Your task to perform on an android device: Open calendar and show me the fourth week of next month Image 0: 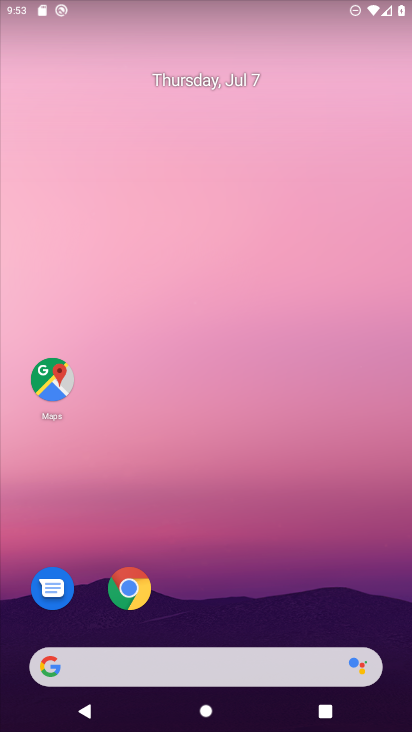
Step 0: click (228, 79)
Your task to perform on an android device: Open calendar and show me the fourth week of next month Image 1: 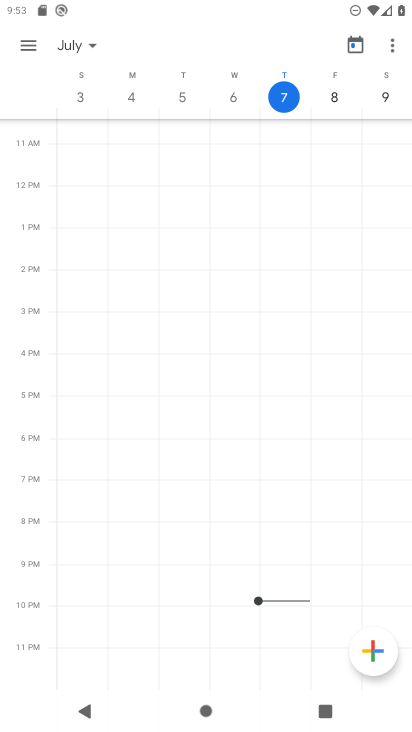
Step 1: click (82, 45)
Your task to perform on an android device: Open calendar and show me the fourth week of next month Image 2: 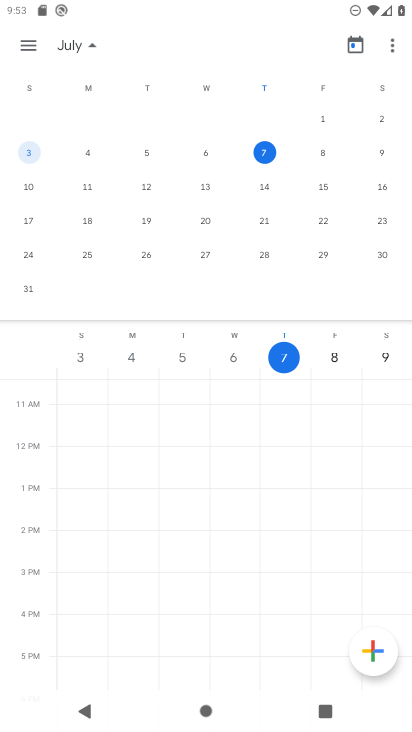
Step 2: click (78, 50)
Your task to perform on an android device: Open calendar and show me the fourth week of next month Image 3: 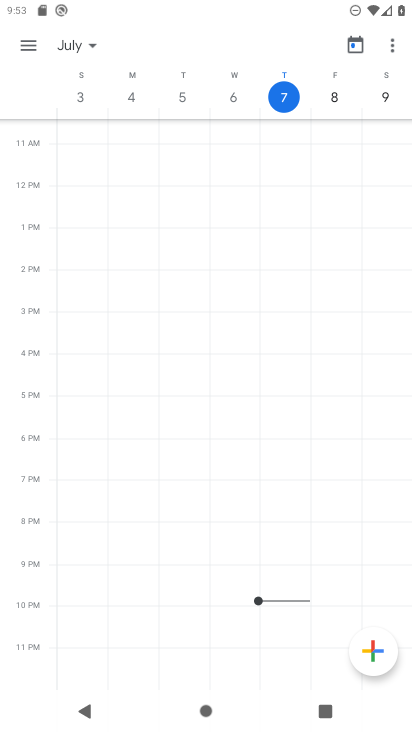
Step 3: drag from (343, 180) to (32, 212)
Your task to perform on an android device: Open calendar and show me the fourth week of next month Image 4: 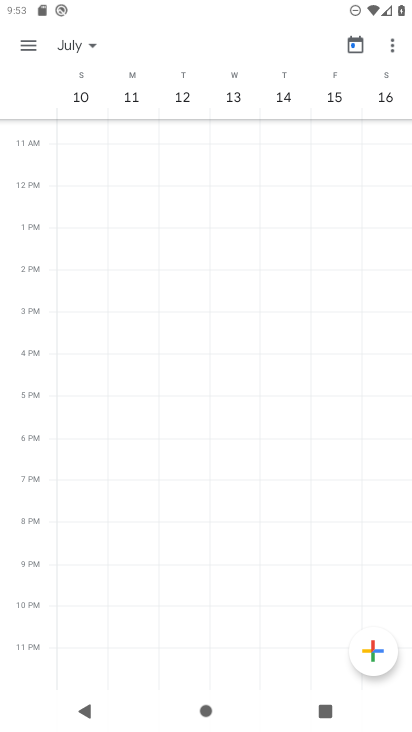
Step 4: click (96, 52)
Your task to perform on an android device: Open calendar and show me the fourth week of next month Image 5: 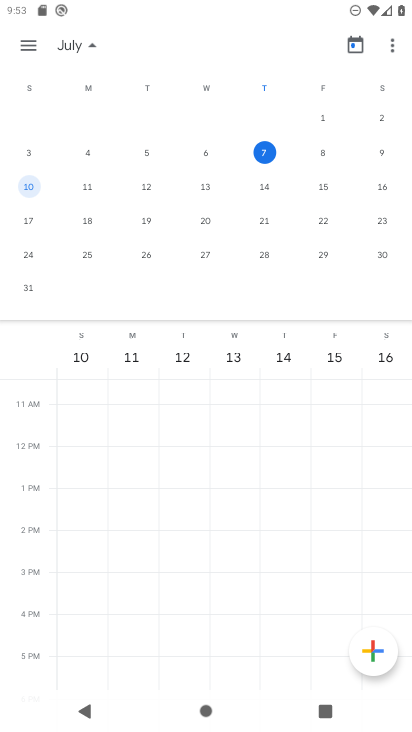
Step 5: drag from (375, 284) to (45, 276)
Your task to perform on an android device: Open calendar and show me the fourth week of next month Image 6: 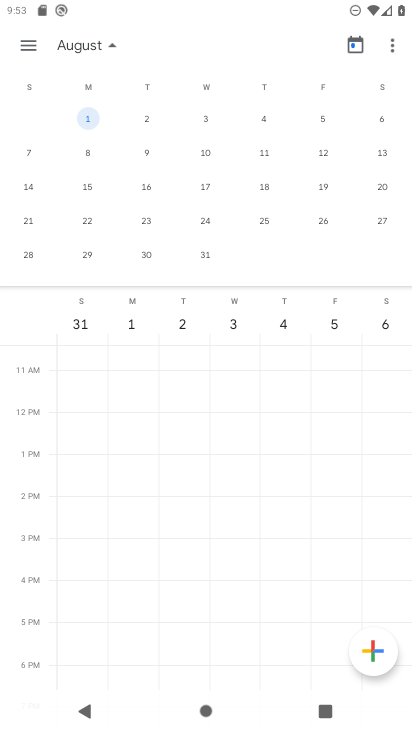
Step 6: click (206, 221)
Your task to perform on an android device: Open calendar and show me the fourth week of next month Image 7: 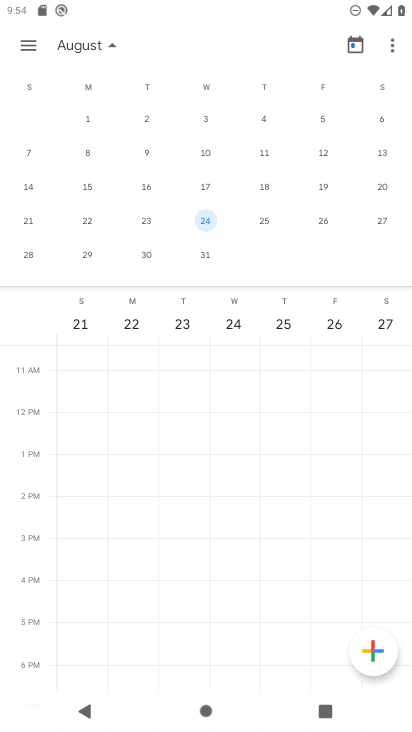
Step 7: task complete